Your task to perform on an android device: Do I have any events this weekend? Image 0: 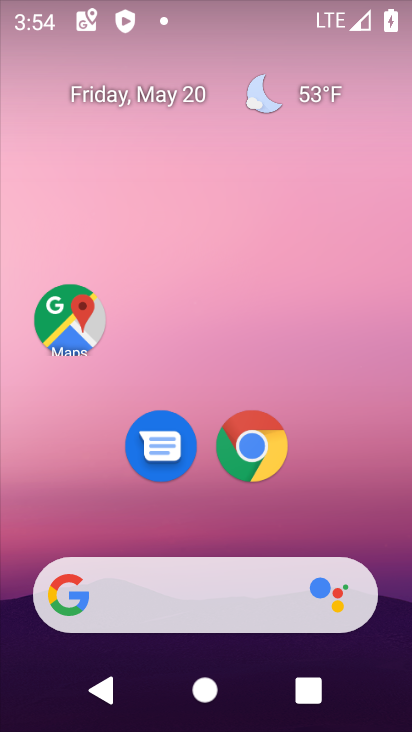
Step 0: drag from (340, 457) to (408, 85)
Your task to perform on an android device: Do I have any events this weekend? Image 1: 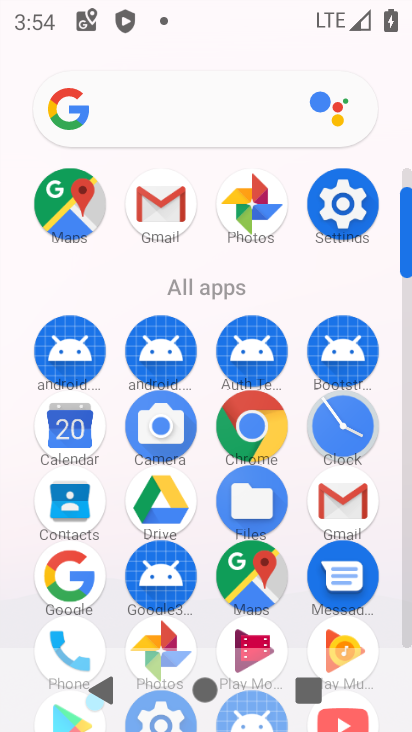
Step 1: click (60, 432)
Your task to perform on an android device: Do I have any events this weekend? Image 2: 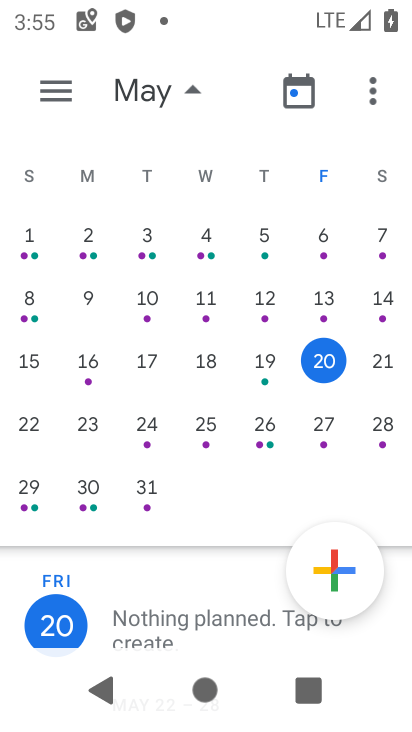
Step 2: task complete